Your task to perform on an android device: Open notification settings Image 0: 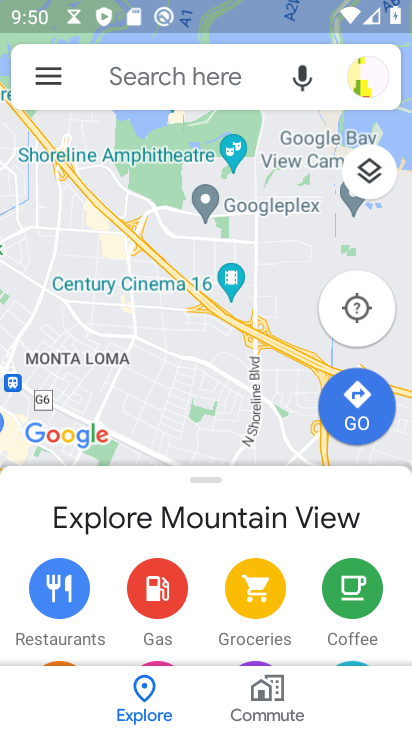
Step 0: press home button
Your task to perform on an android device: Open notification settings Image 1: 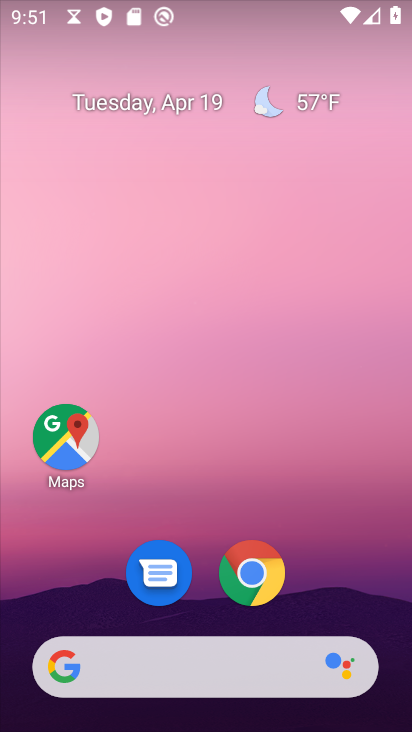
Step 1: drag from (319, 535) to (314, 41)
Your task to perform on an android device: Open notification settings Image 2: 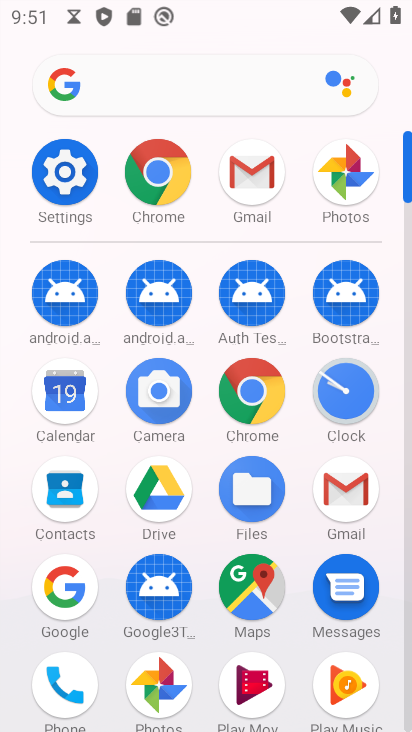
Step 2: click (55, 160)
Your task to perform on an android device: Open notification settings Image 3: 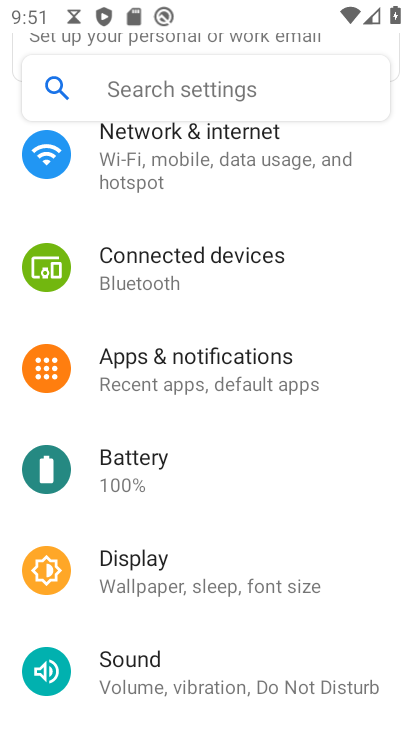
Step 3: click (206, 383)
Your task to perform on an android device: Open notification settings Image 4: 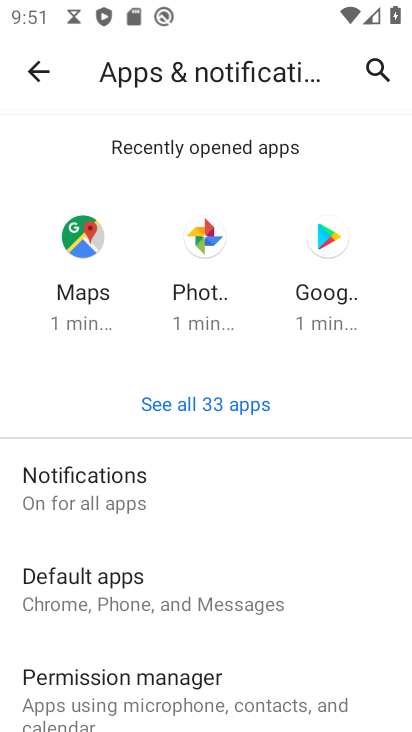
Step 4: task complete